Your task to perform on an android device: Open Youtube and go to "Your channel" Image 0: 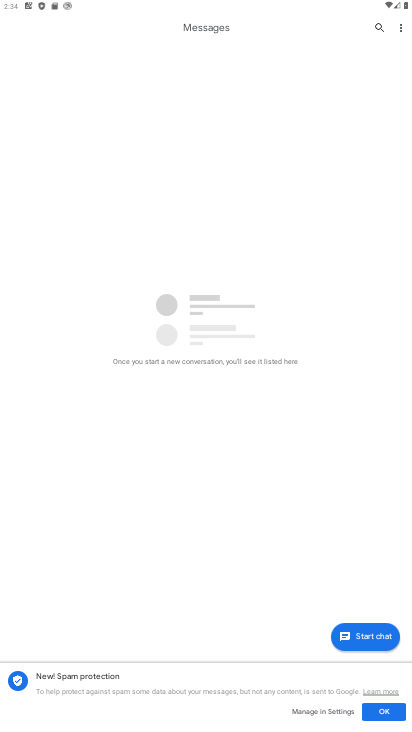
Step 0: press home button
Your task to perform on an android device: Open Youtube and go to "Your channel" Image 1: 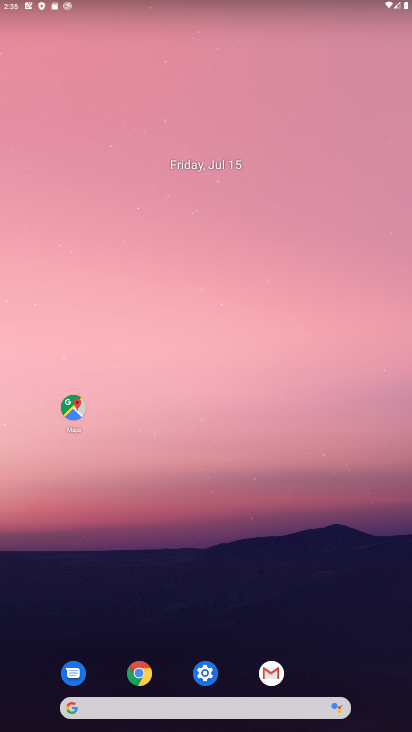
Step 1: drag from (243, 674) to (264, 107)
Your task to perform on an android device: Open Youtube and go to "Your channel" Image 2: 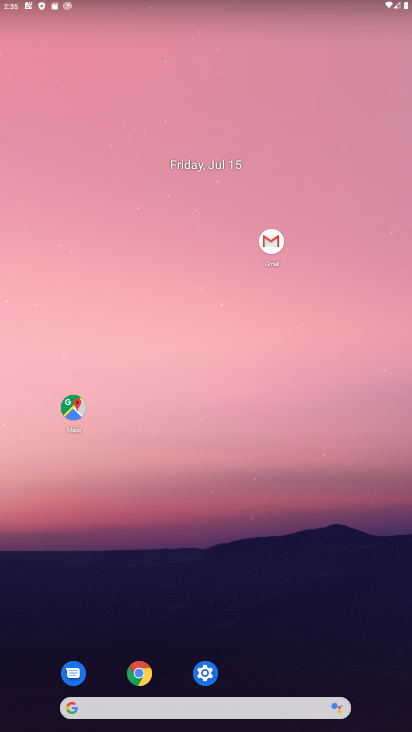
Step 2: drag from (264, 668) to (411, 39)
Your task to perform on an android device: Open Youtube and go to "Your channel" Image 3: 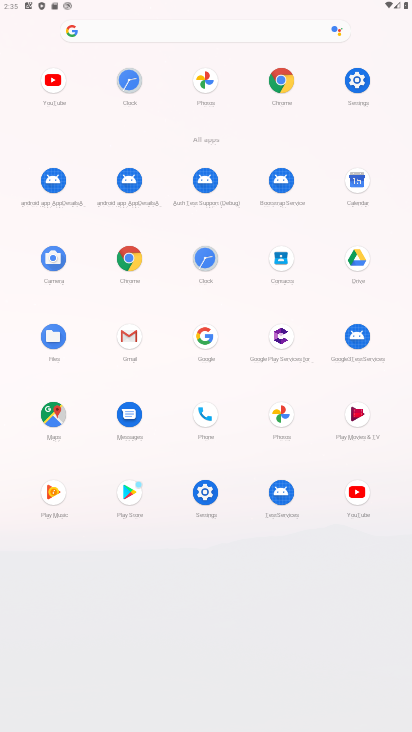
Step 3: click (362, 499)
Your task to perform on an android device: Open Youtube and go to "Your channel" Image 4: 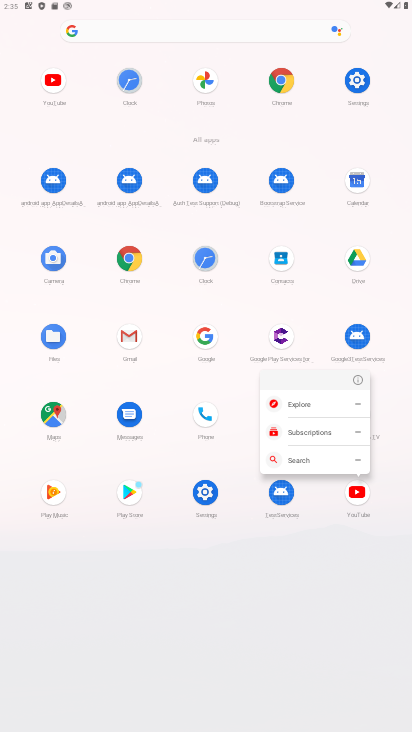
Step 4: click (354, 494)
Your task to perform on an android device: Open Youtube and go to "Your channel" Image 5: 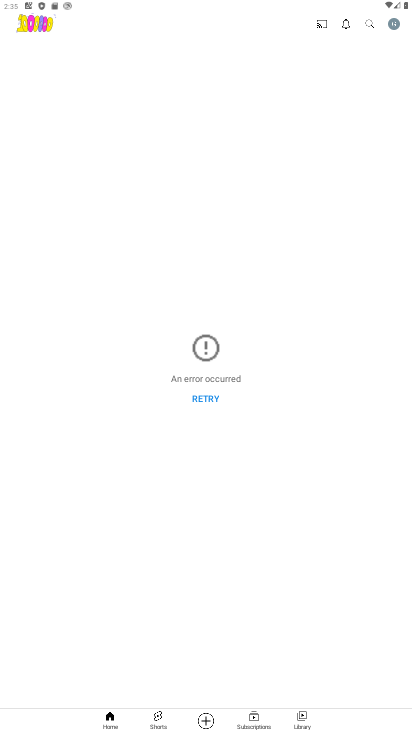
Step 5: click (395, 29)
Your task to perform on an android device: Open Youtube and go to "Your channel" Image 6: 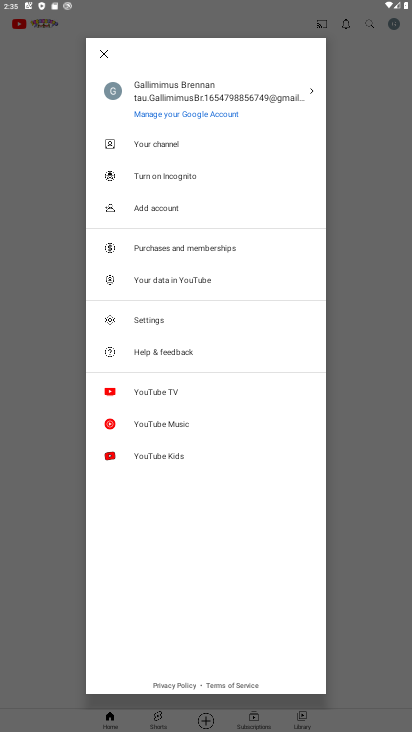
Step 6: click (162, 149)
Your task to perform on an android device: Open Youtube and go to "Your channel" Image 7: 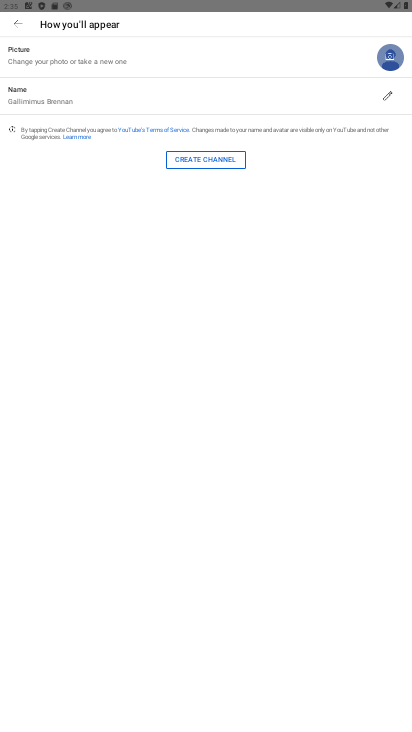
Step 7: task complete